Your task to perform on an android device: add a label to a message in the gmail app Image 0: 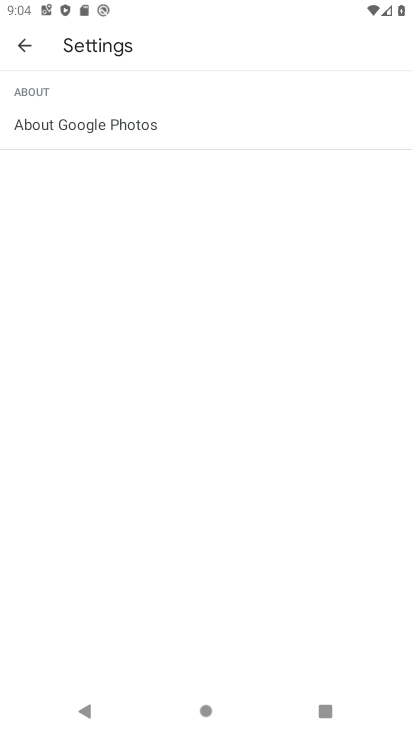
Step 0: press home button
Your task to perform on an android device: add a label to a message in the gmail app Image 1: 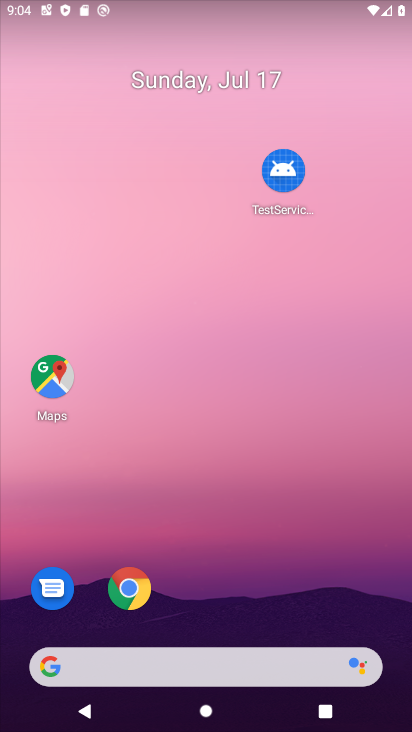
Step 1: drag from (243, 660) to (327, 90)
Your task to perform on an android device: add a label to a message in the gmail app Image 2: 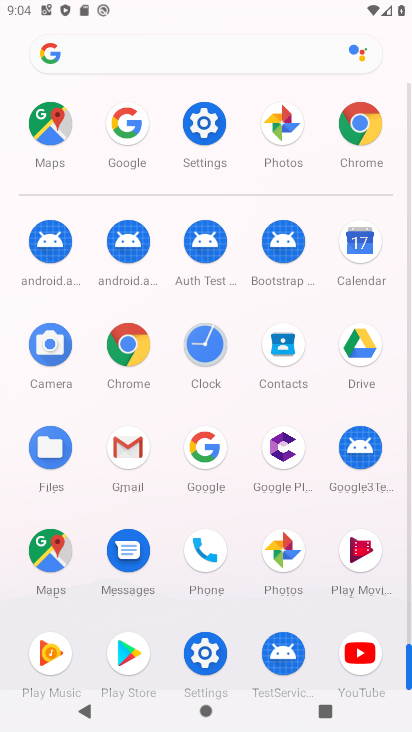
Step 2: click (127, 464)
Your task to perform on an android device: add a label to a message in the gmail app Image 3: 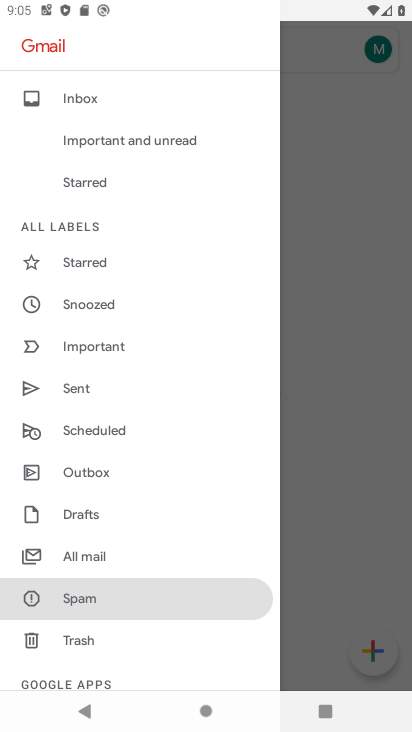
Step 3: drag from (98, 496) to (165, 191)
Your task to perform on an android device: add a label to a message in the gmail app Image 4: 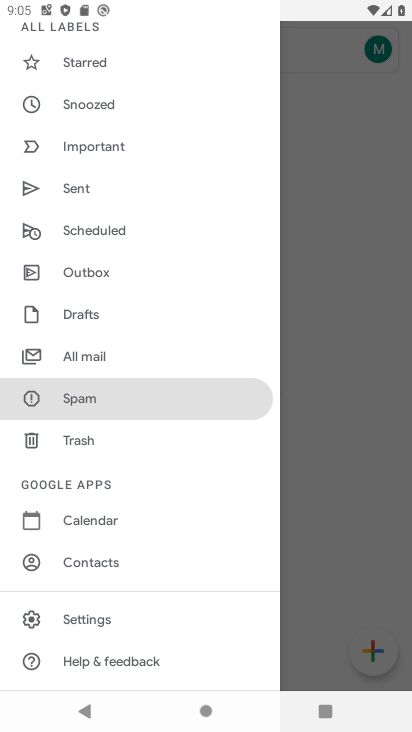
Step 4: click (113, 360)
Your task to perform on an android device: add a label to a message in the gmail app Image 5: 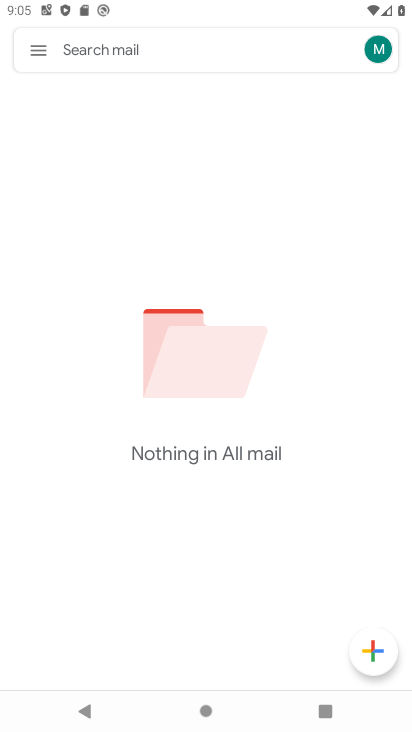
Step 5: task complete